Your task to perform on an android device: Open the calendar app, open the side menu, and click the "Day" option Image 0: 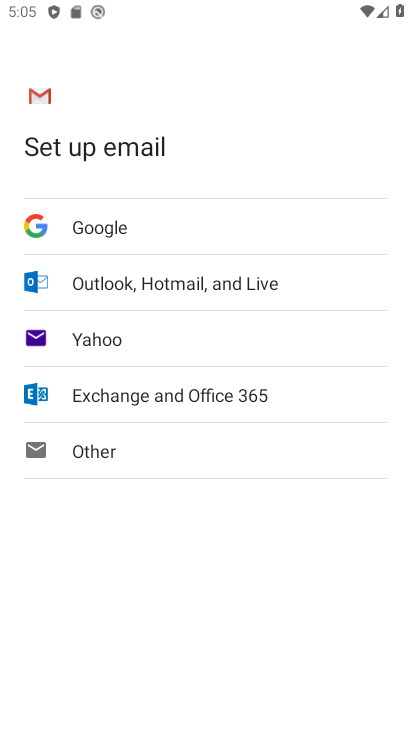
Step 0: press back button
Your task to perform on an android device: Open the calendar app, open the side menu, and click the "Day" option Image 1: 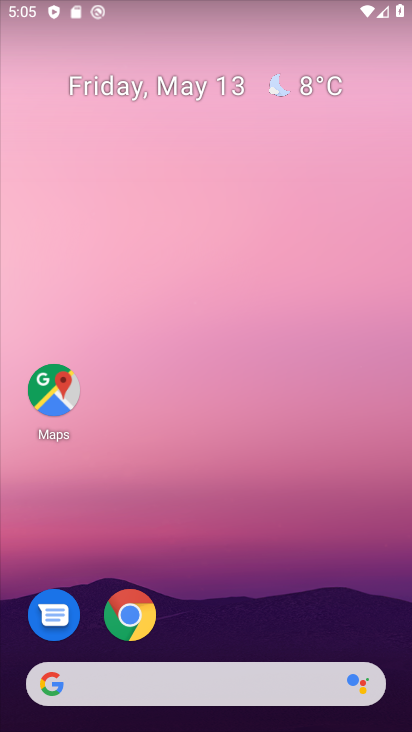
Step 1: drag from (223, 598) to (201, 87)
Your task to perform on an android device: Open the calendar app, open the side menu, and click the "Day" option Image 2: 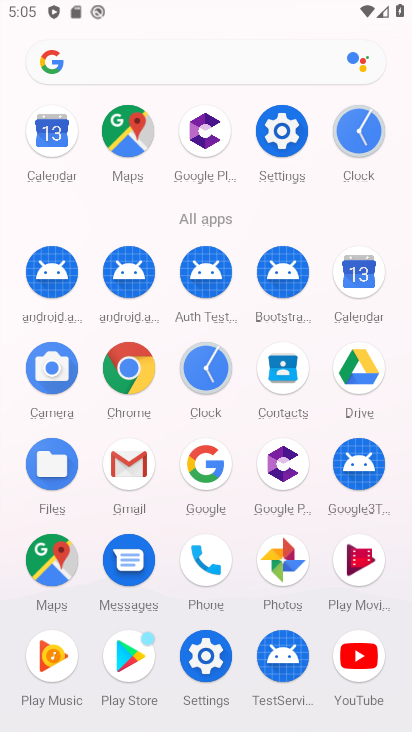
Step 2: click (361, 266)
Your task to perform on an android device: Open the calendar app, open the side menu, and click the "Day" option Image 3: 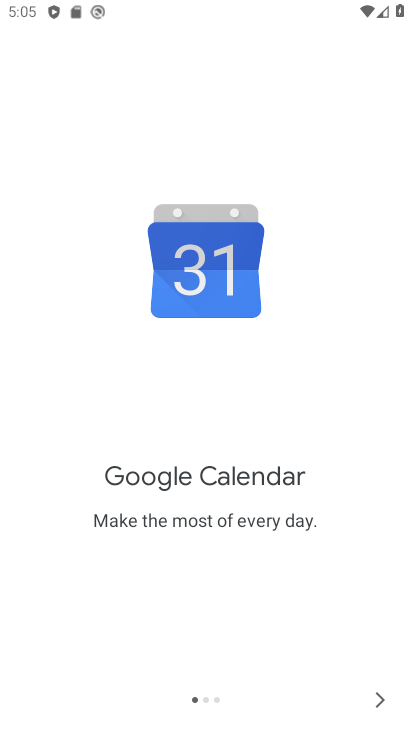
Step 3: click (373, 707)
Your task to perform on an android device: Open the calendar app, open the side menu, and click the "Day" option Image 4: 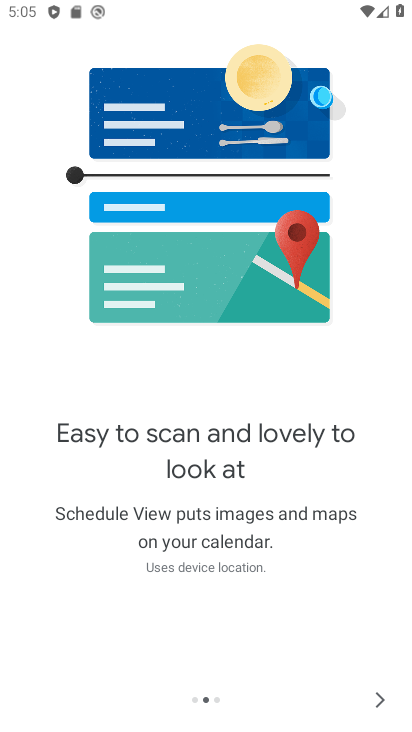
Step 4: click (378, 703)
Your task to perform on an android device: Open the calendar app, open the side menu, and click the "Day" option Image 5: 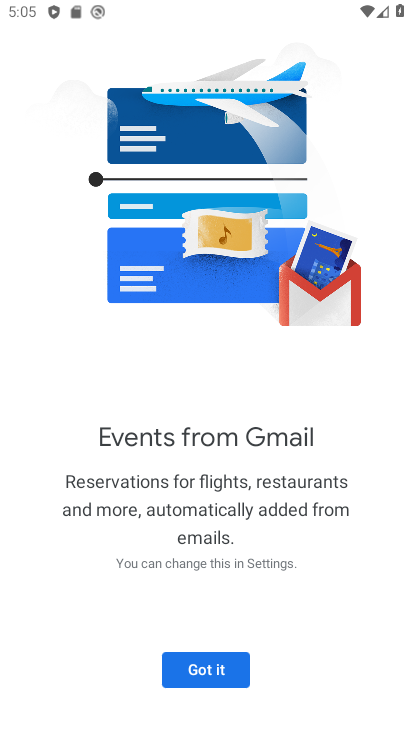
Step 5: click (216, 673)
Your task to perform on an android device: Open the calendar app, open the side menu, and click the "Day" option Image 6: 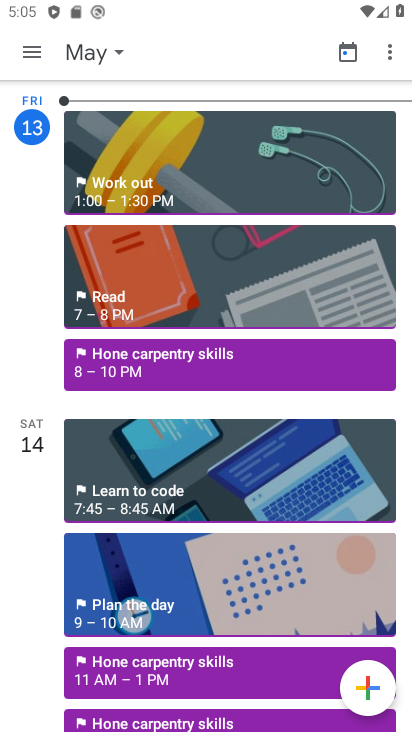
Step 6: click (33, 51)
Your task to perform on an android device: Open the calendar app, open the side menu, and click the "Day" option Image 7: 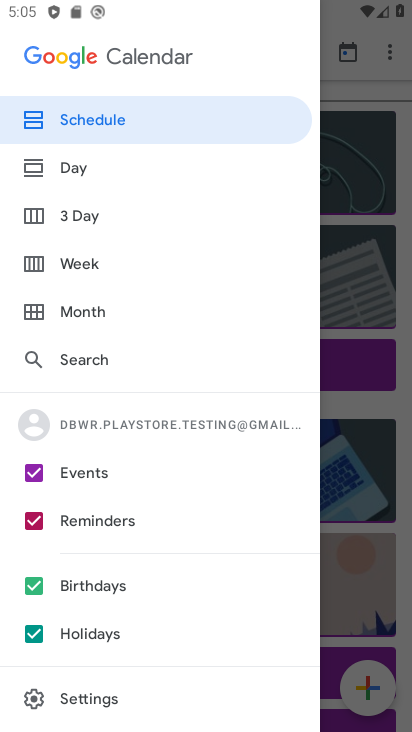
Step 7: drag from (180, 172) to (166, 464)
Your task to perform on an android device: Open the calendar app, open the side menu, and click the "Day" option Image 8: 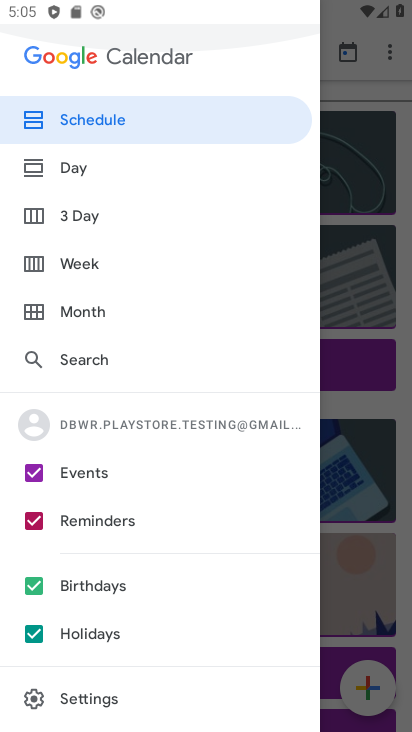
Step 8: drag from (174, 516) to (175, 96)
Your task to perform on an android device: Open the calendar app, open the side menu, and click the "Day" option Image 9: 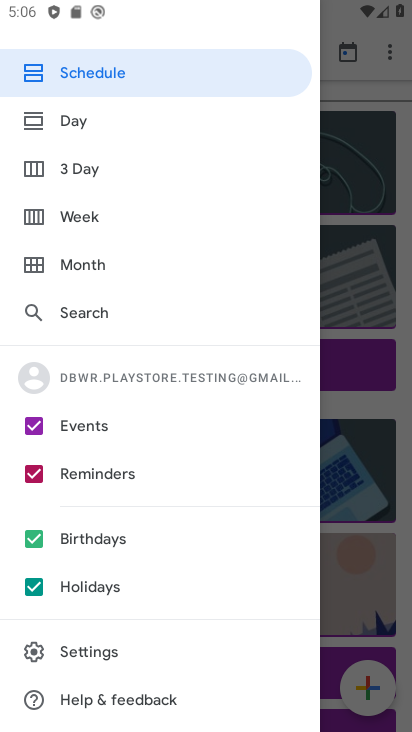
Step 9: click (96, 103)
Your task to perform on an android device: Open the calendar app, open the side menu, and click the "Day" option Image 10: 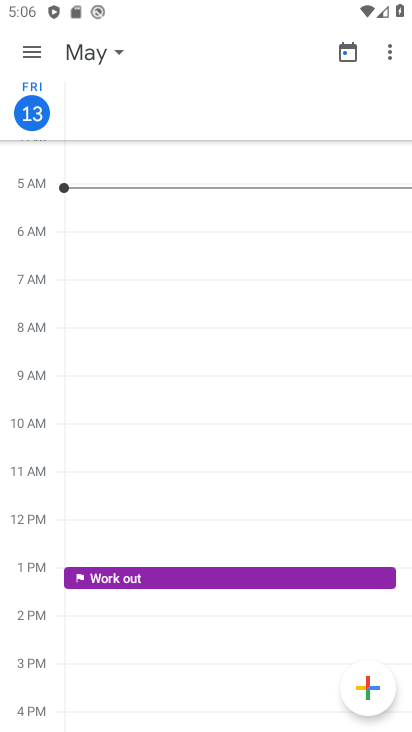
Step 10: task complete